Your task to perform on an android device: turn on javascript in the chrome app Image 0: 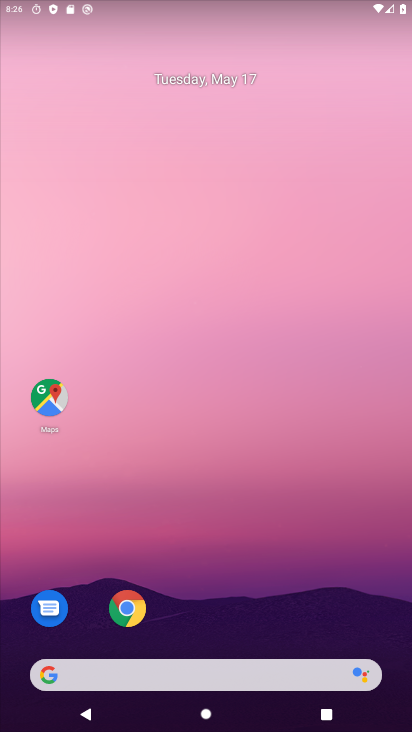
Step 0: drag from (354, 466) to (350, 133)
Your task to perform on an android device: turn on javascript in the chrome app Image 1: 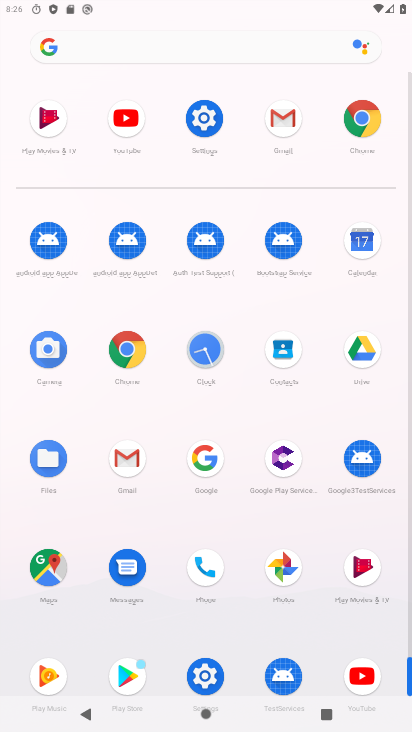
Step 1: click (192, 136)
Your task to perform on an android device: turn on javascript in the chrome app Image 2: 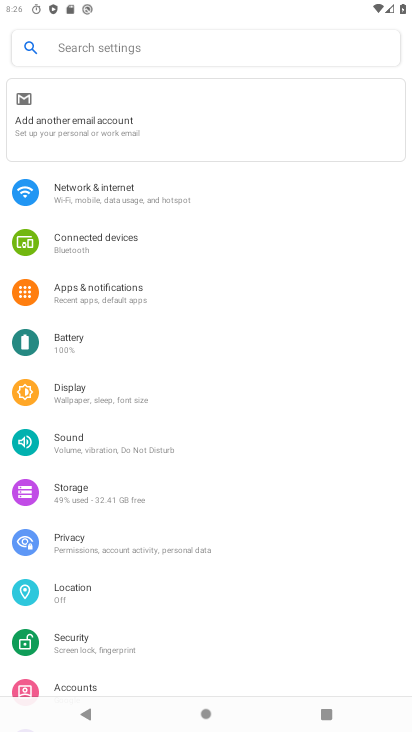
Step 2: press home button
Your task to perform on an android device: turn on javascript in the chrome app Image 3: 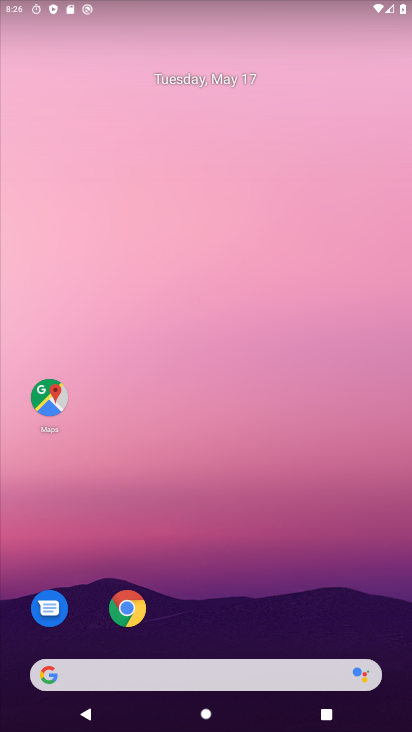
Step 3: click (121, 609)
Your task to perform on an android device: turn on javascript in the chrome app Image 4: 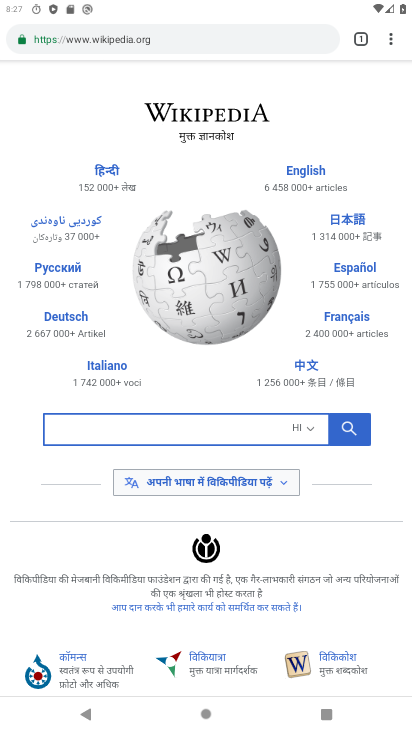
Step 4: drag from (406, 44) to (226, 473)
Your task to perform on an android device: turn on javascript in the chrome app Image 5: 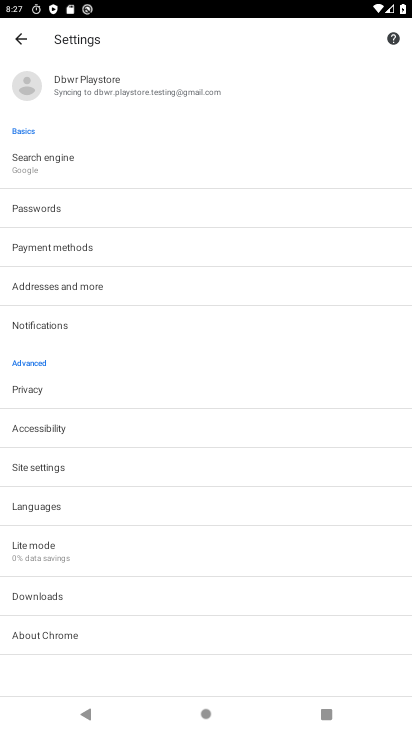
Step 5: click (84, 461)
Your task to perform on an android device: turn on javascript in the chrome app Image 6: 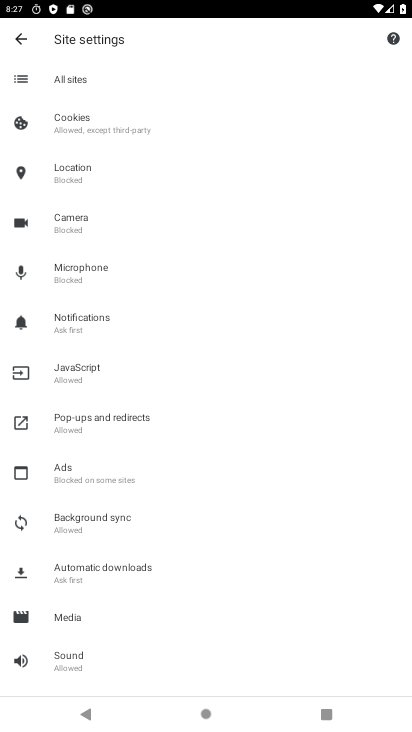
Step 6: click (81, 372)
Your task to perform on an android device: turn on javascript in the chrome app Image 7: 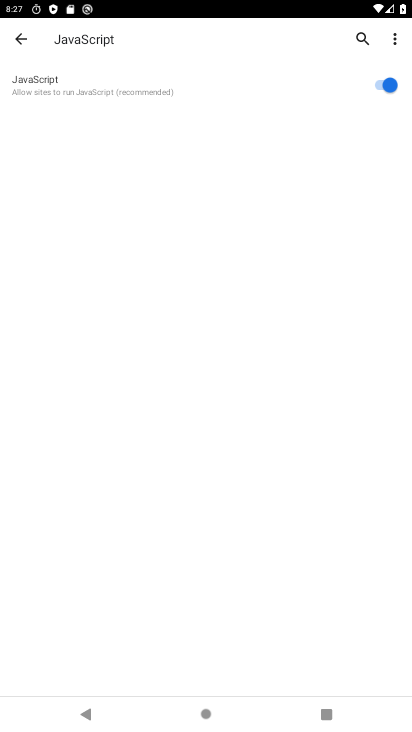
Step 7: task complete